Your task to perform on an android device: change your default location settings in chrome Image 0: 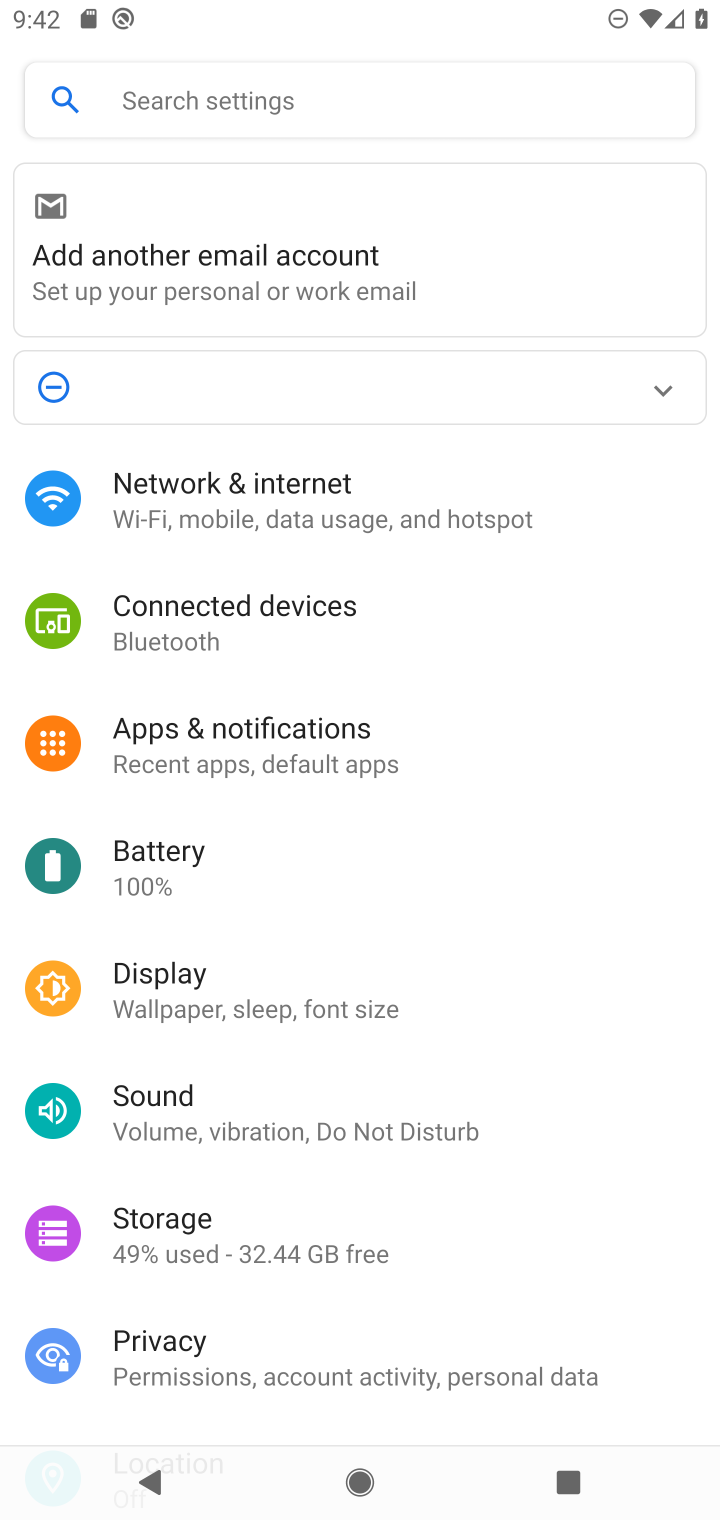
Step 0: press home button
Your task to perform on an android device: change your default location settings in chrome Image 1: 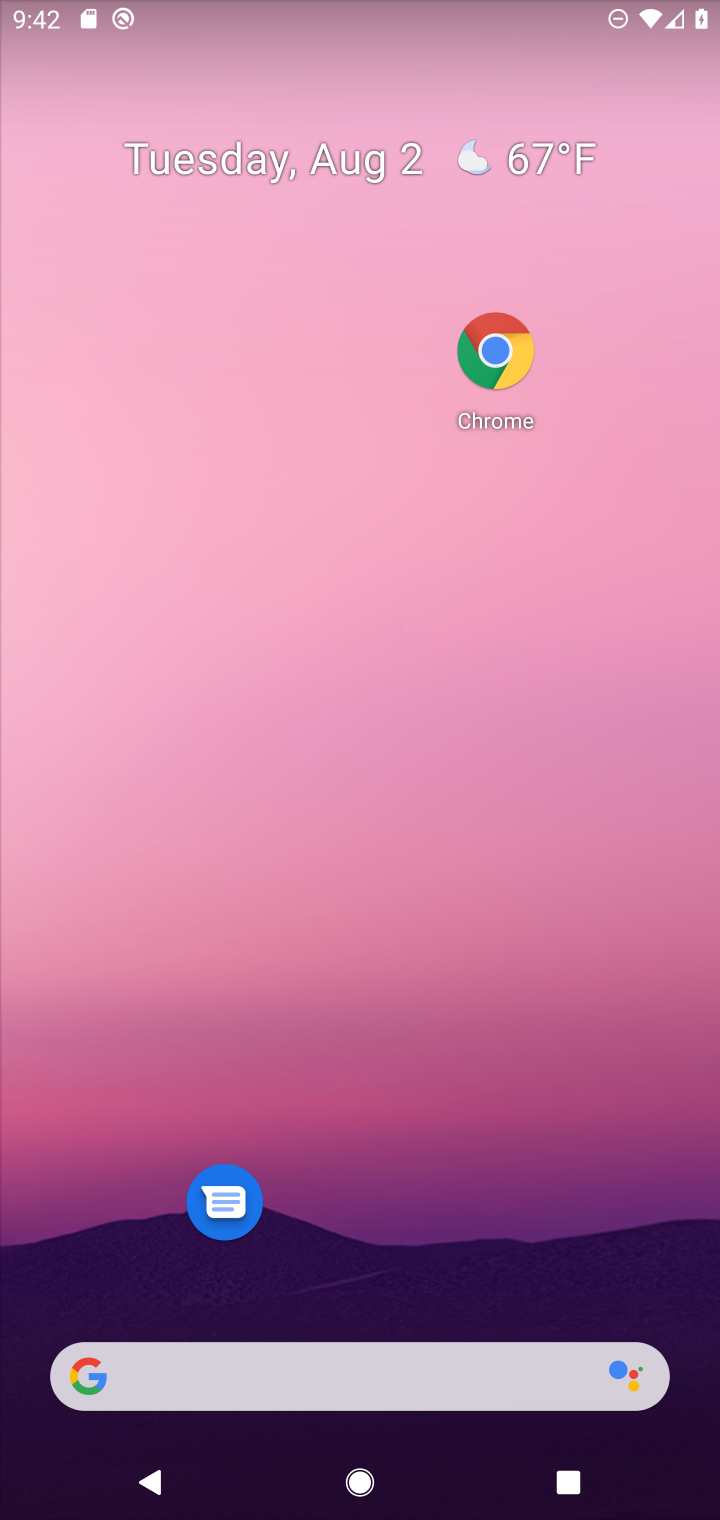
Step 1: click (501, 364)
Your task to perform on an android device: change your default location settings in chrome Image 2: 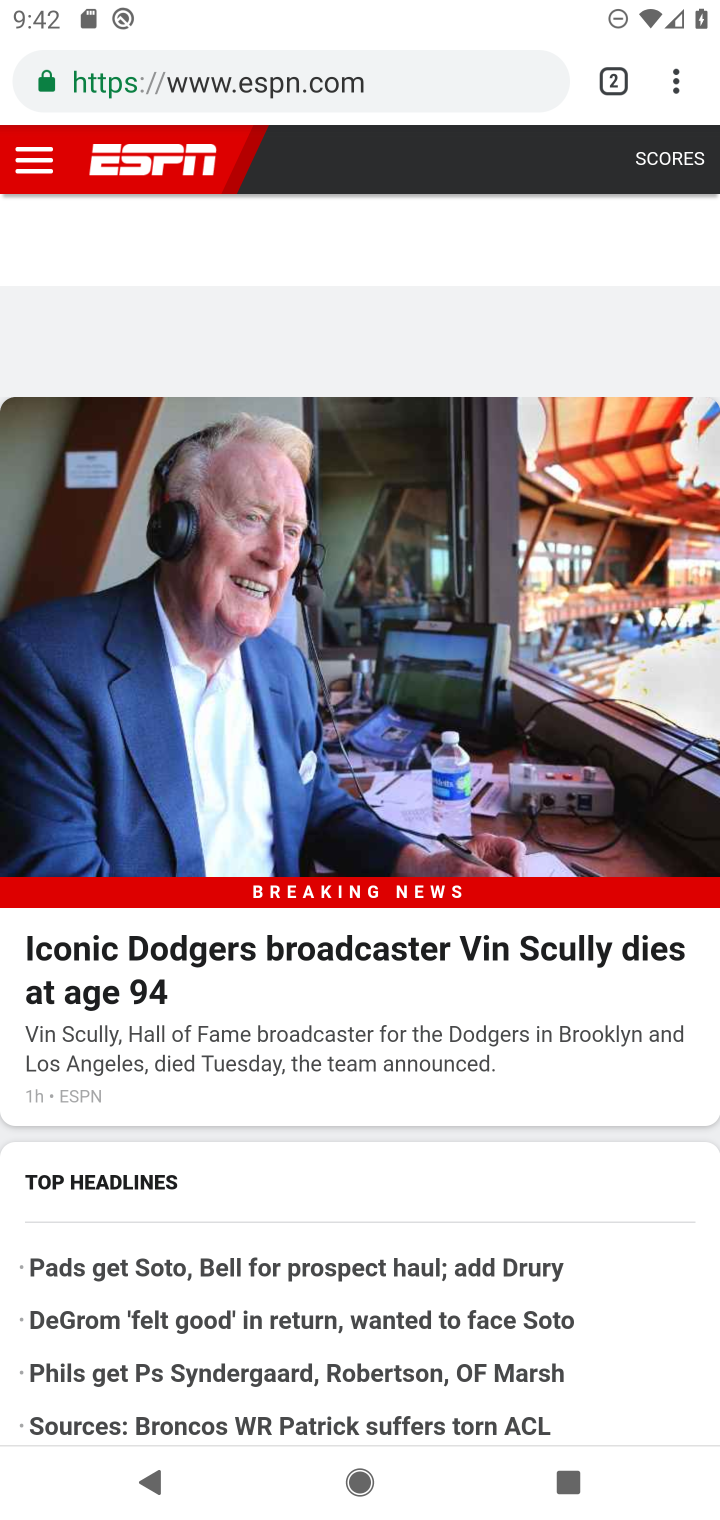
Step 2: drag from (677, 87) to (465, 990)
Your task to perform on an android device: change your default location settings in chrome Image 3: 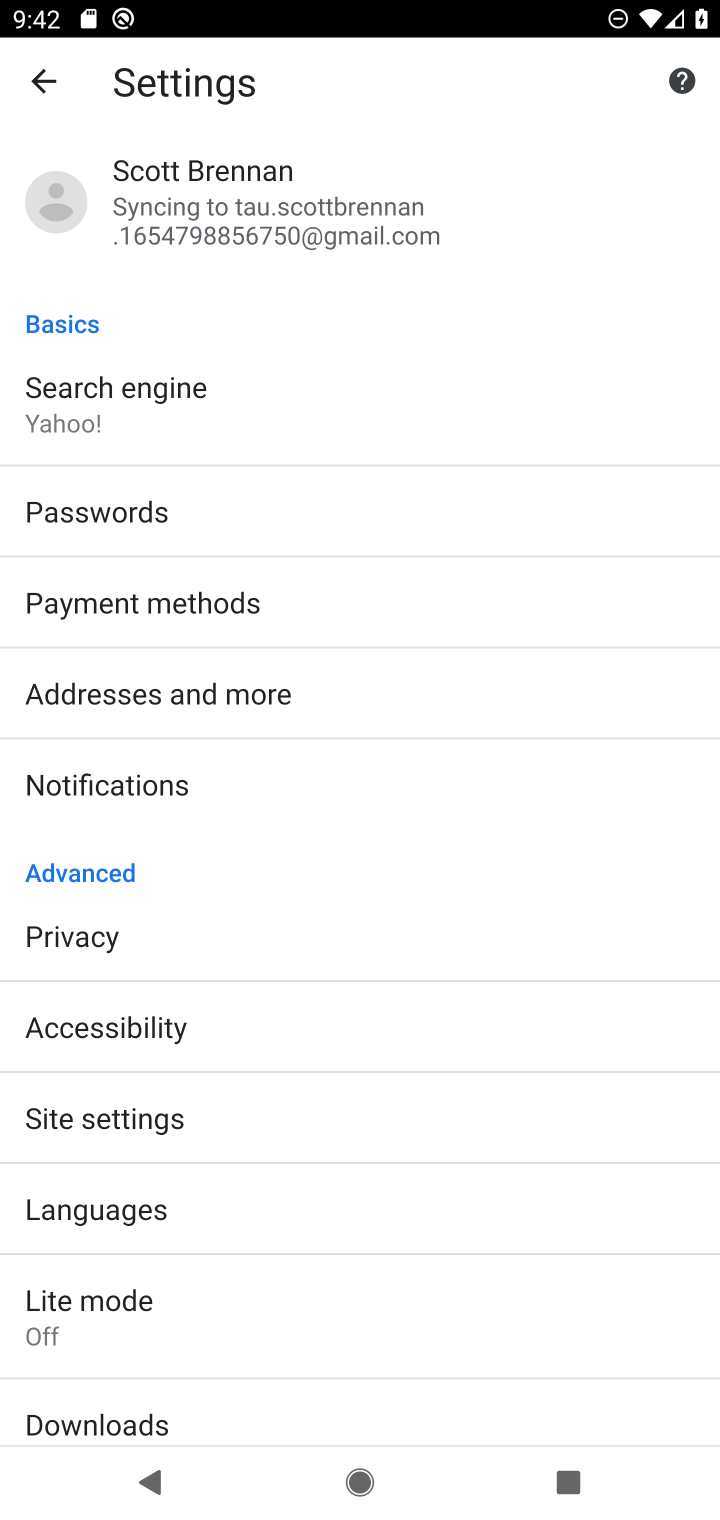
Step 3: click (108, 1134)
Your task to perform on an android device: change your default location settings in chrome Image 4: 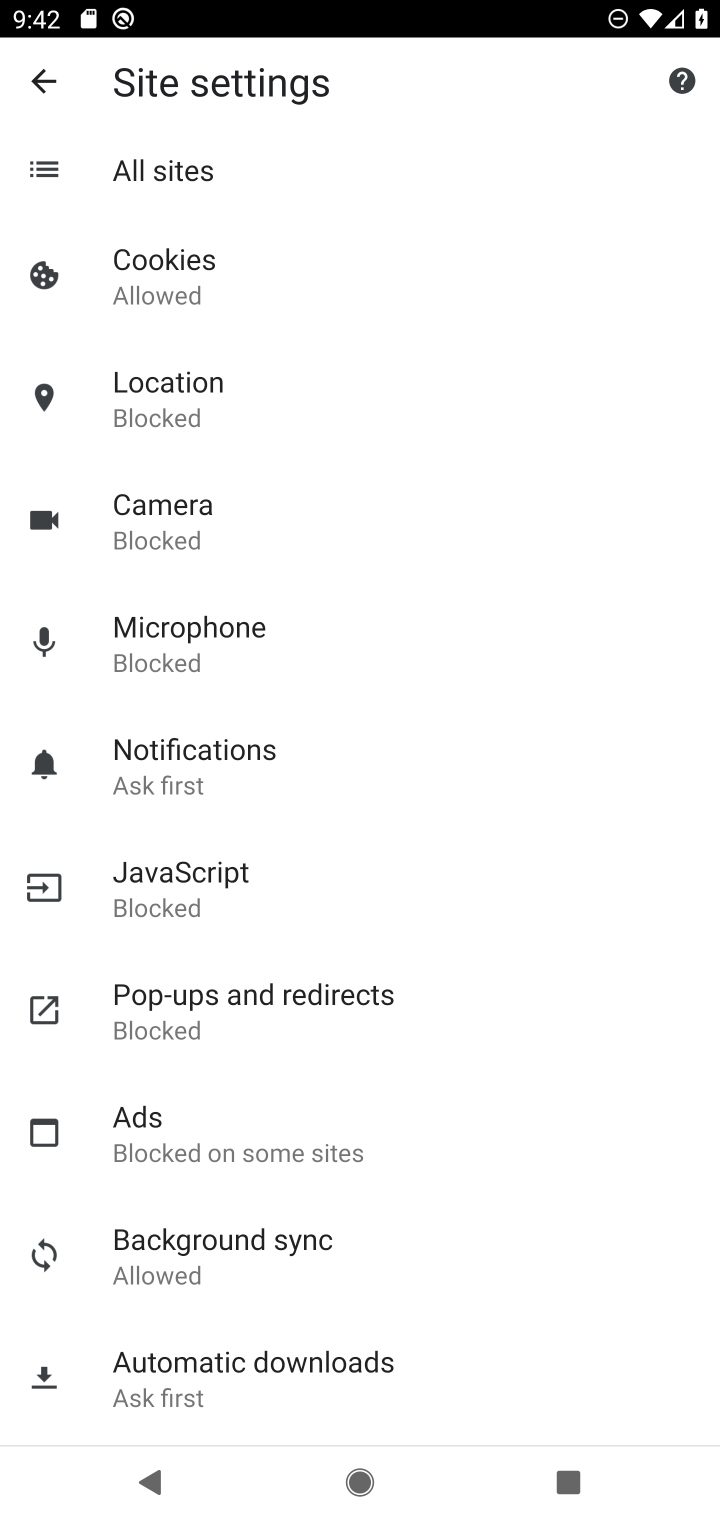
Step 4: click (139, 405)
Your task to perform on an android device: change your default location settings in chrome Image 5: 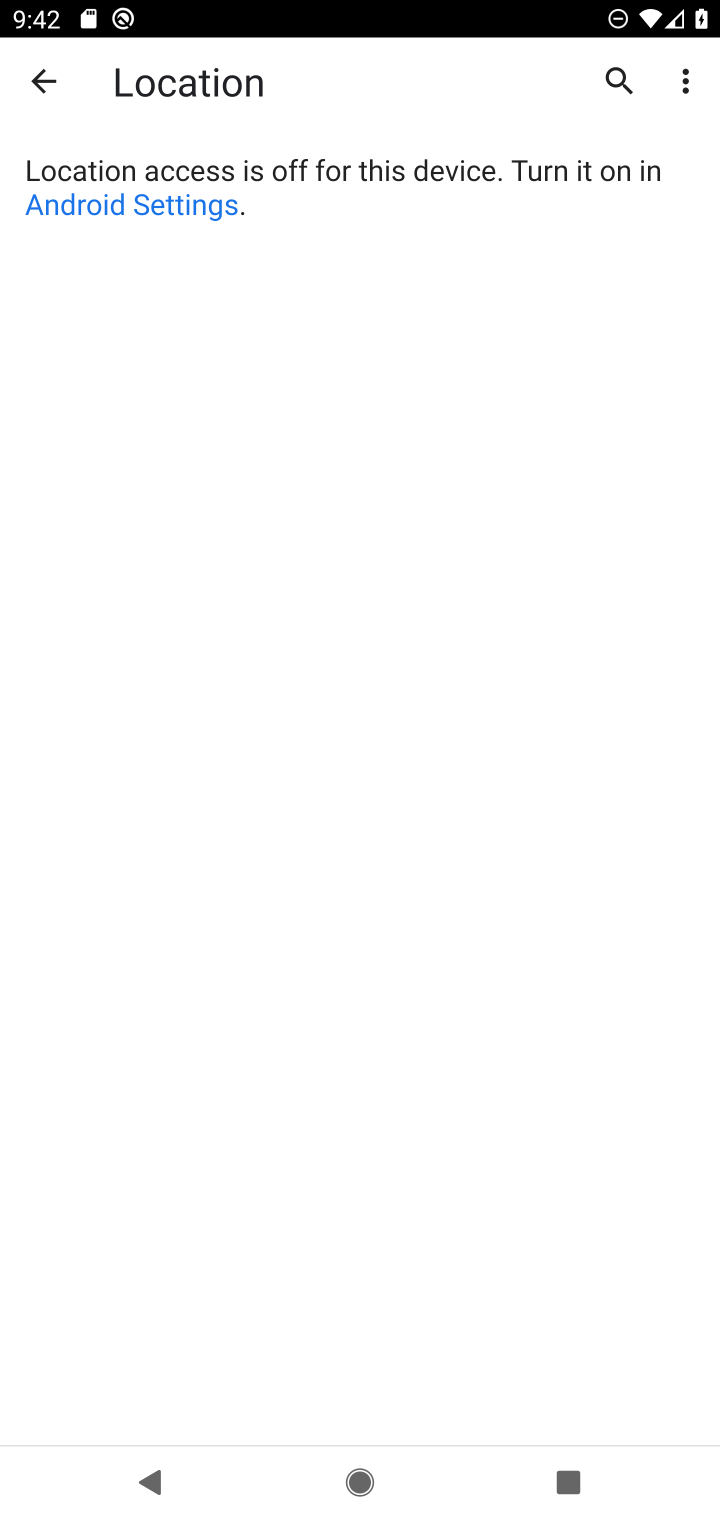
Step 5: click (160, 208)
Your task to perform on an android device: change your default location settings in chrome Image 6: 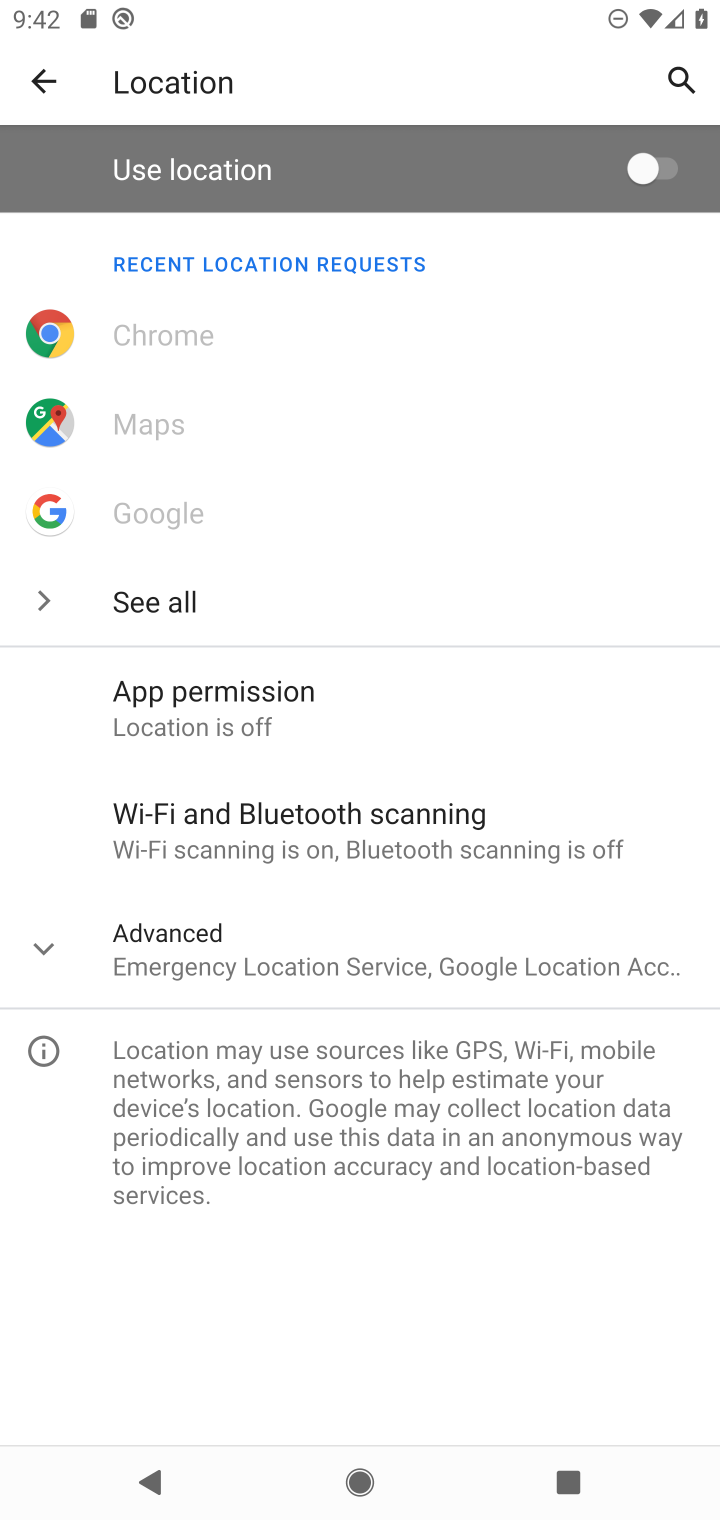
Step 6: click (657, 180)
Your task to perform on an android device: change your default location settings in chrome Image 7: 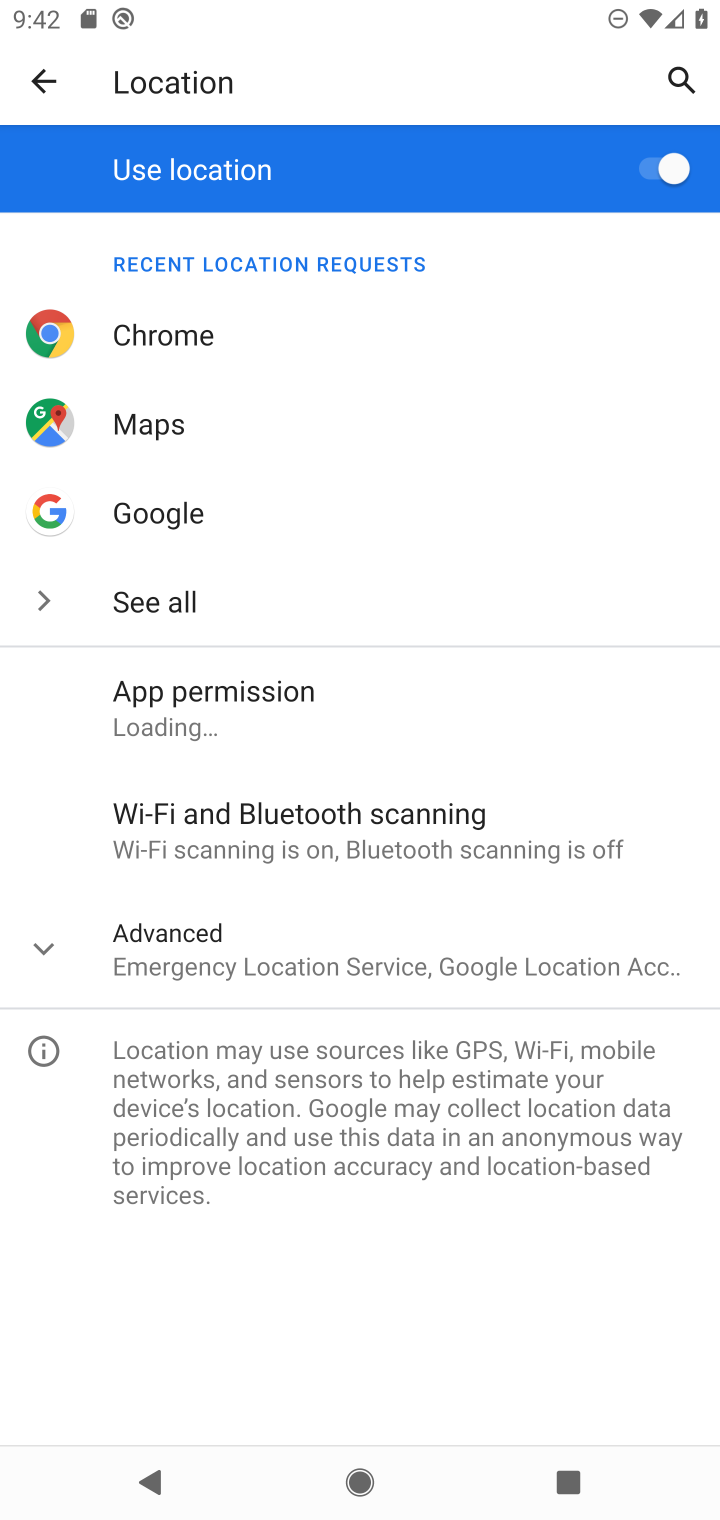
Step 7: task complete